Your task to perform on an android device: Open Reddit.com Image 0: 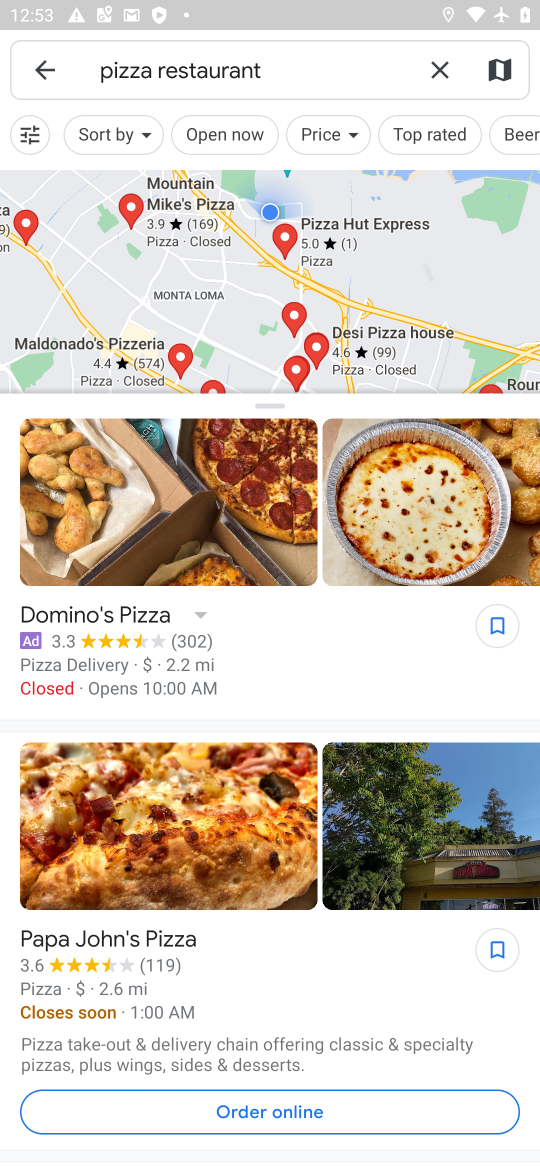
Step 0: press home button
Your task to perform on an android device: Open Reddit.com Image 1: 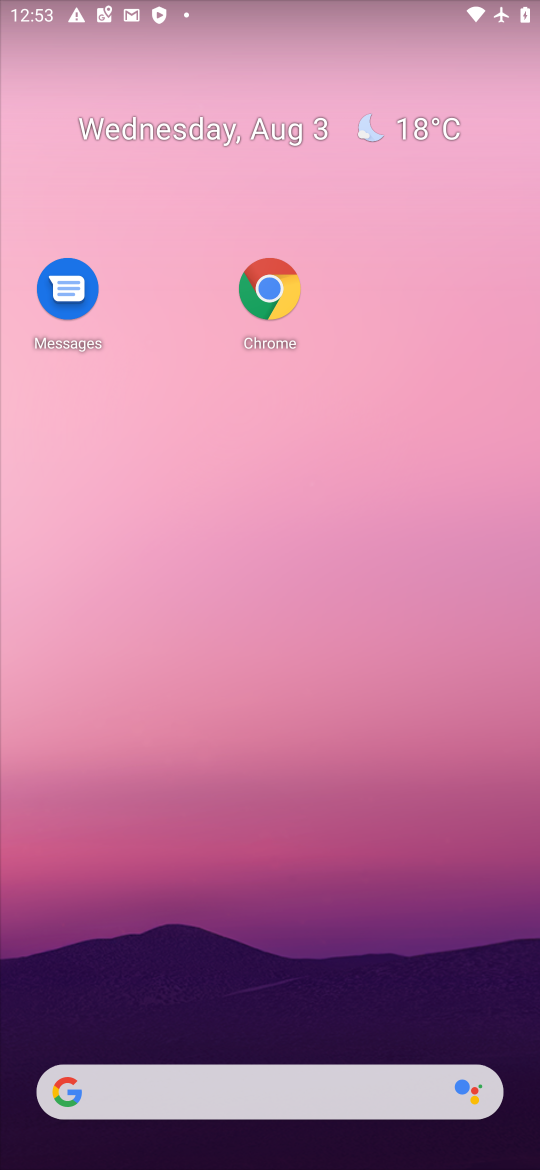
Step 1: click (212, 1072)
Your task to perform on an android device: Open Reddit.com Image 2: 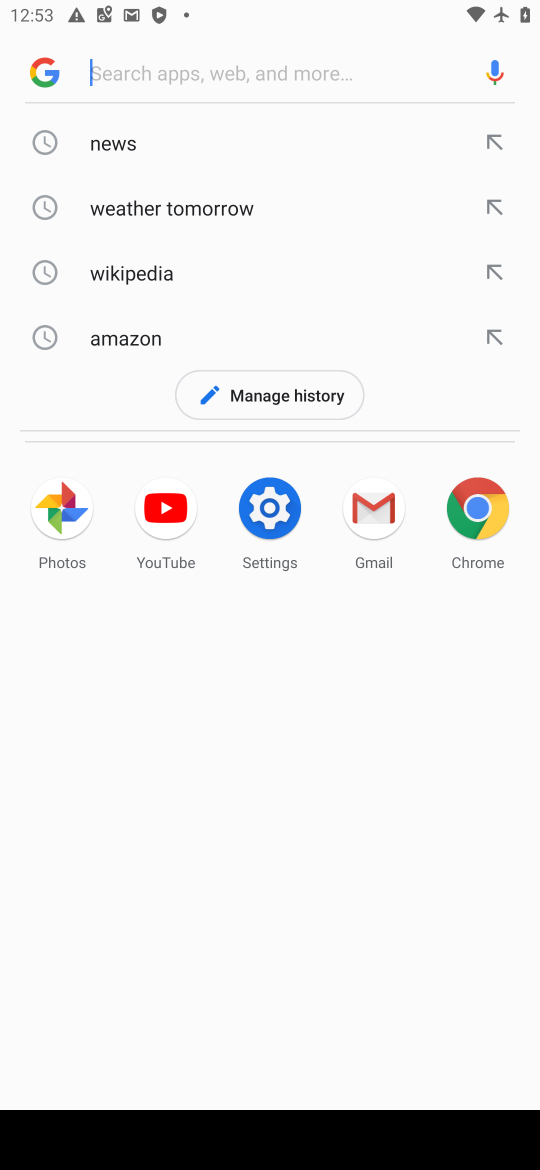
Step 2: type "reddit"
Your task to perform on an android device: Open Reddit.com Image 3: 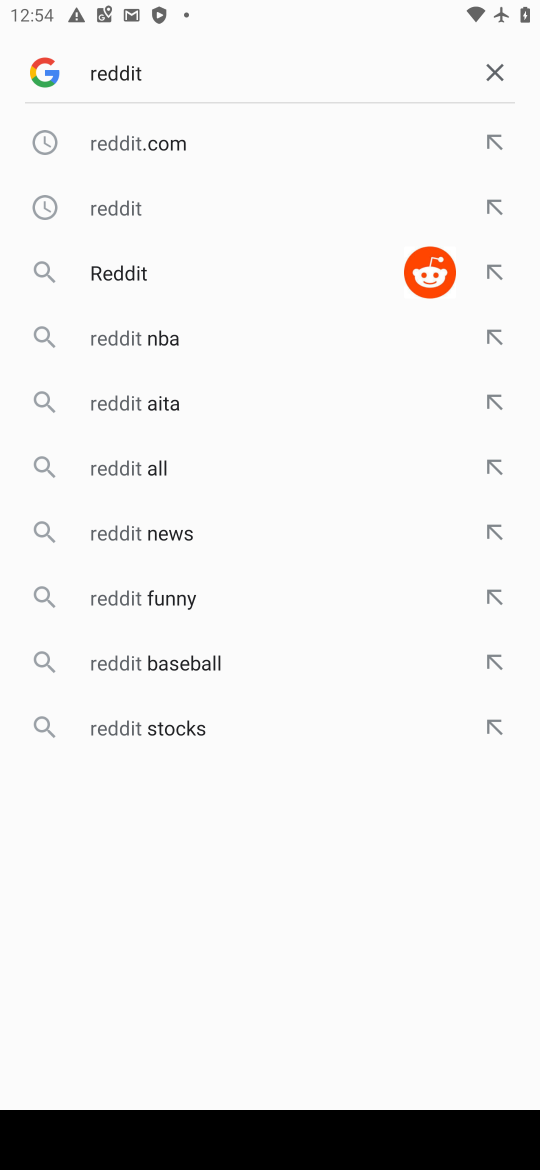
Step 3: click (168, 152)
Your task to perform on an android device: Open Reddit.com Image 4: 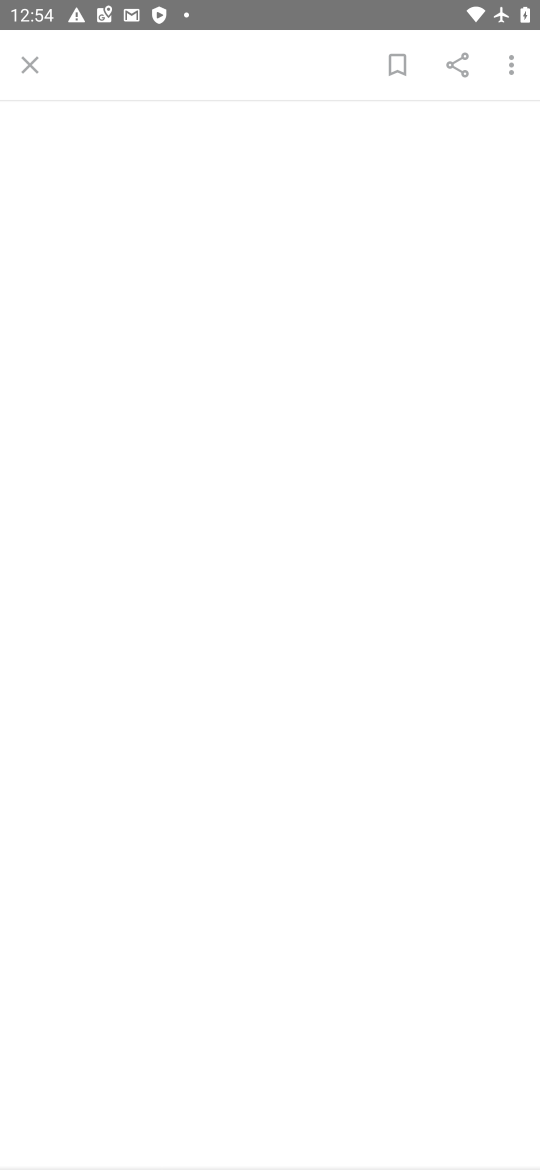
Step 4: task complete